Your task to perform on an android device: toggle data saver in the chrome app Image 0: 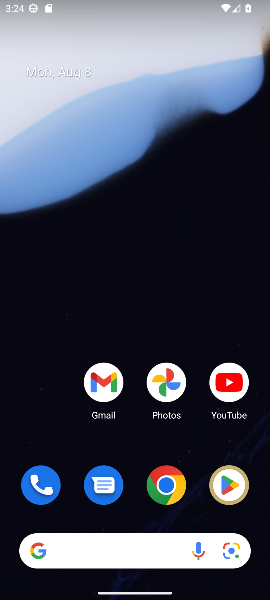
Step 0: drag from (172, 426) to (181, 199)
Your task to perform on an android device: toggle data saver in the chrome app Image 1: 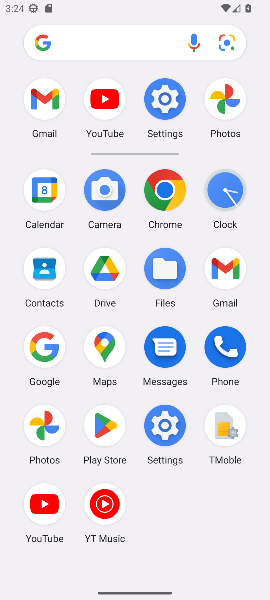
Step 1: click (158, 197)
Your task to perform on an android device: toggle data saver in the chrome app Image 2: 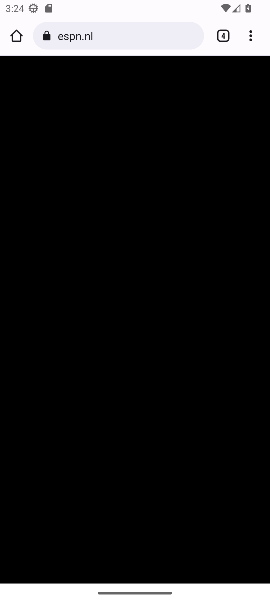
Step 2: press back button
Your task to perform on an android device: toggle data saver in the chrome app Image 3: 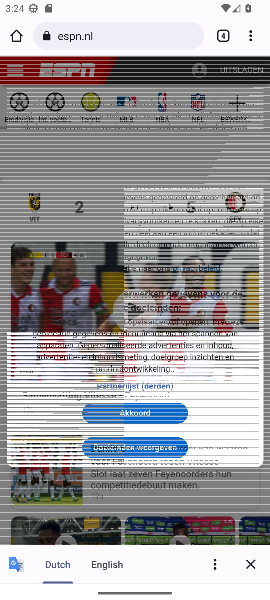
Step 3: drag from (250, 29) to (139, 456)
Your task to perform on an android device: toggle data saver in the chrome app Image 4: 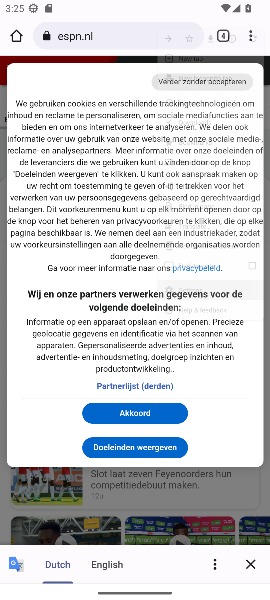
Step 4: click (133, 458)
Your task to perform on an android device: toggle data saver in the chrome app Image 5: 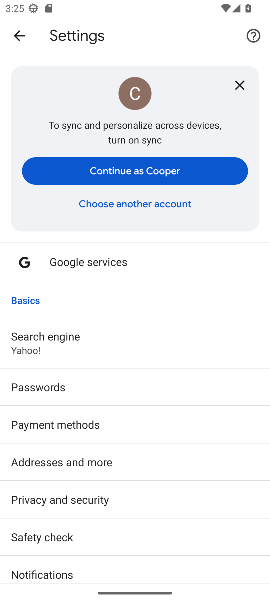
Step 5: drag from (114, 550) to (85, 156)
Your task to perform on an android device: toggle data saver in the chrome app Image 6: 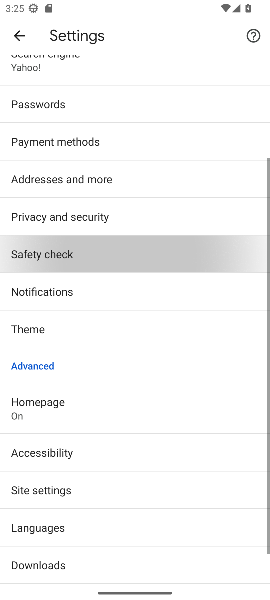
Step 6: drag from (90, 433) to (87, 129)
Your task to perform on an android device: toggle data saver in the chrome app Image 7: 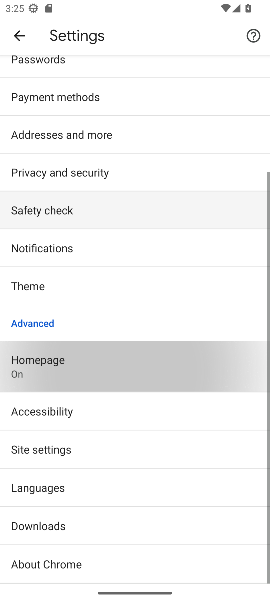
Step 7: drag from (79, 271) to (79, 149)
Your task to perform on an android device: toggle data saver in the chrome app Image 8: 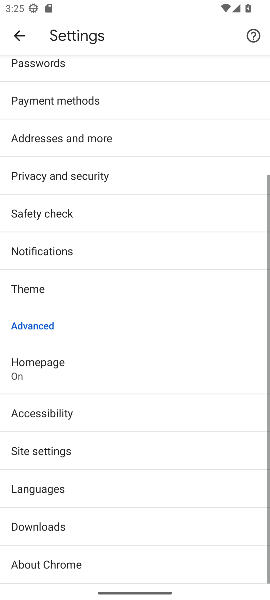
Step 8: drag from (81, 284) to (81, 185)
Your task to perform on an android device: toggle data saver in the chrome app Image 9: 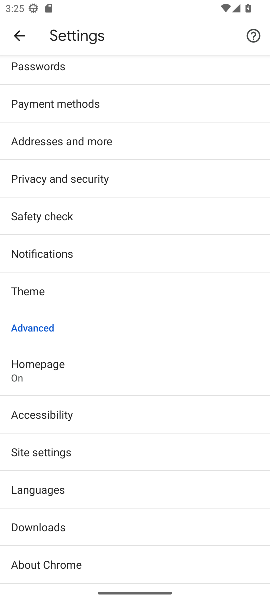
Step 9: drag from (51, 538) to (40, 313)
Your task to perform on an android device: toggle data saver in the chrome app Image 10: 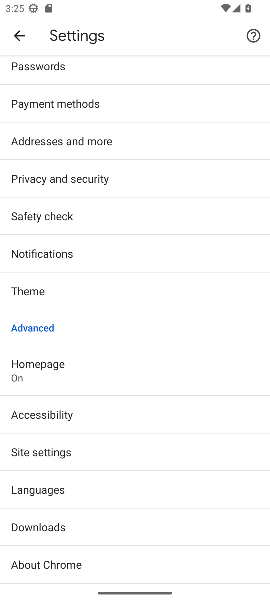
Step 10: click (46, 448)
Your task to perform on an android device: toggle data saver in the chrome app Image 11: 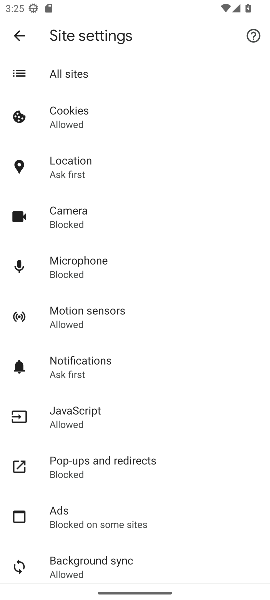
Step 11: task complete